Your task to perform on an android device: Play the last video I watched on Youtube Image 0: 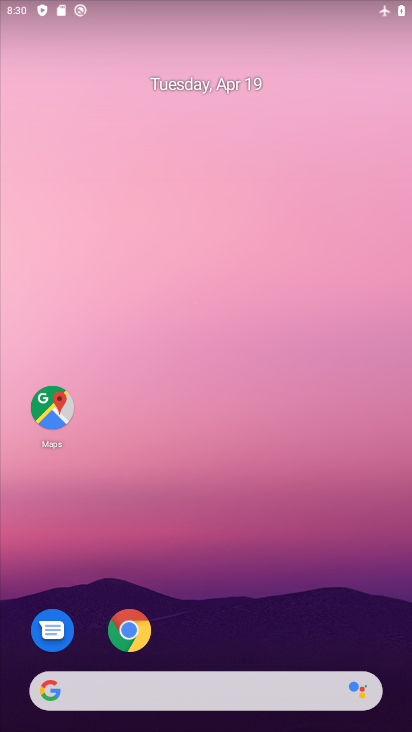
Step 0: drag from (177, 657) to (281, 71)
Your task to perform on an android device: Play the last video I watched on Youtube Image 1: 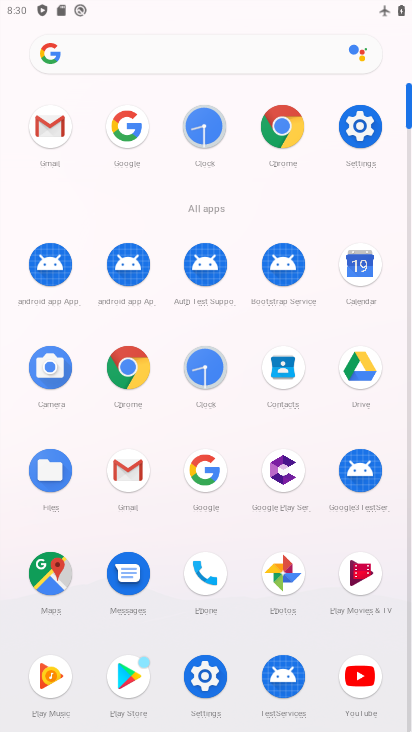
Step 1: click (371, 683)
Your task to perform on an android device: Play the last video I watched on Youtube Image 2: 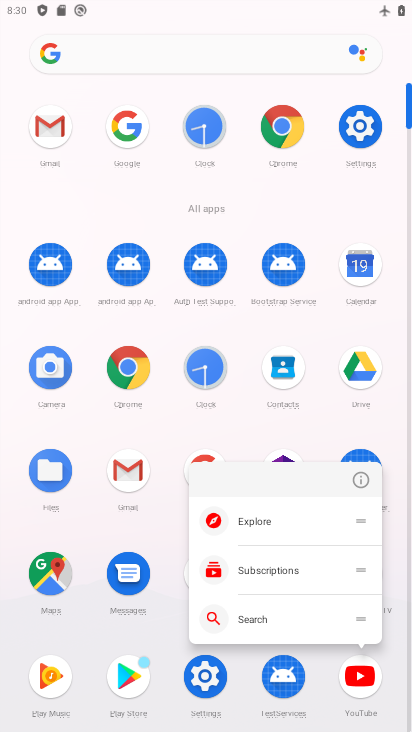
Step 2: click (352, 686)
Your task to perform on an android device: Play the last video I watched on Youtube Image 3: 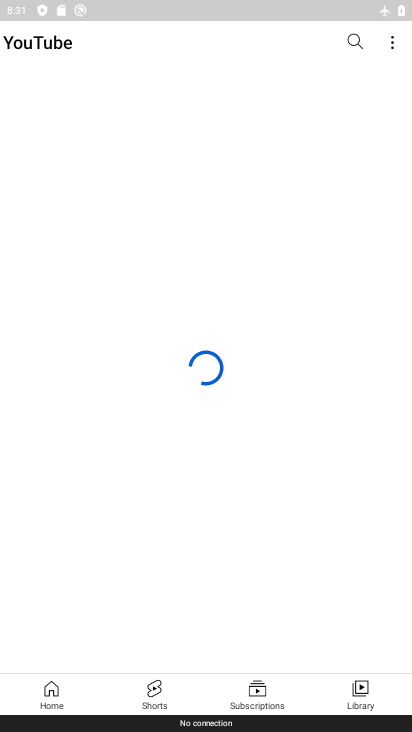
Step 3: click (359, 705)
Your task to perform on an android device: Play the last video I watched on Youtube Image 4: 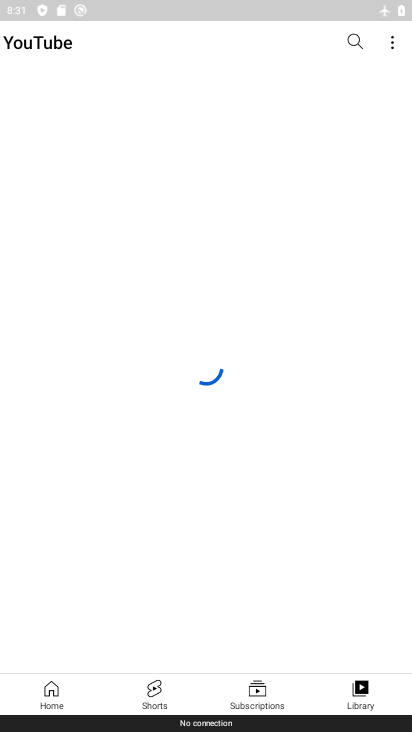
Step 4: click (368, 697)
Your task to perform on an android device: Play the last video I watched on Youtube Image 5: 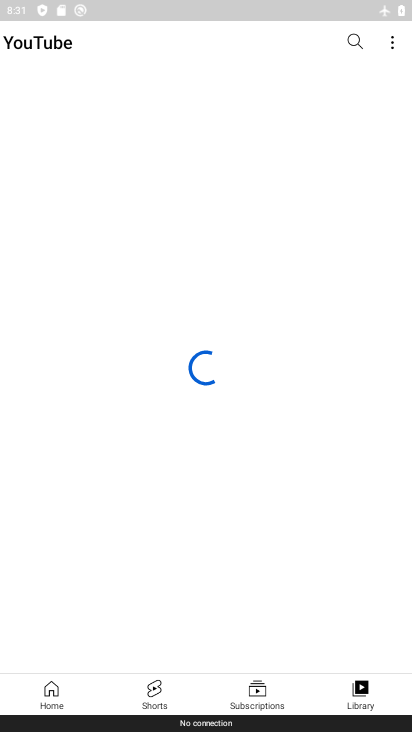
Step 5: task complete